Your task to perform on an android device: Go to privacy settings Image 0: 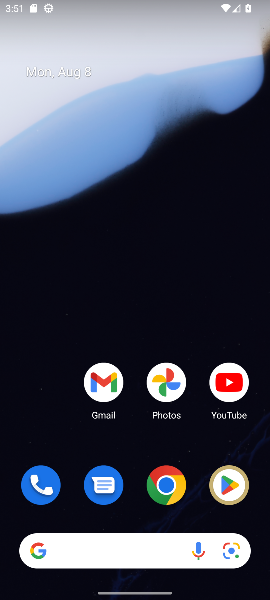
Step 0: drag from (187, 565) to (164, 56)
Your task to perform on an android device: Go to privacy settings Image 1: 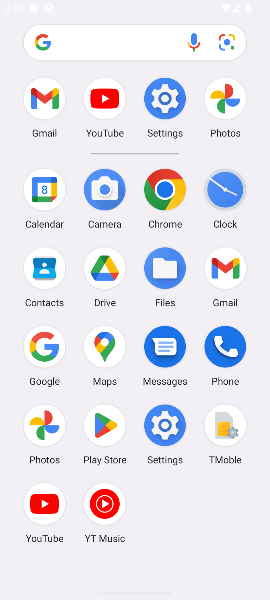
Step 1: drag from (151, 283) to (164, 25)
Your task to perform on an android device: Go to privacy settings Image 2: 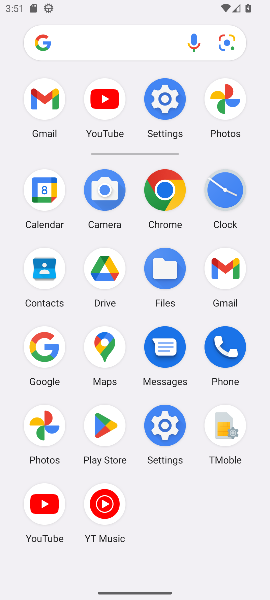
Step 2: click (160, 97)
Your task to perform on an android device: Go to privacy settings Image 3: 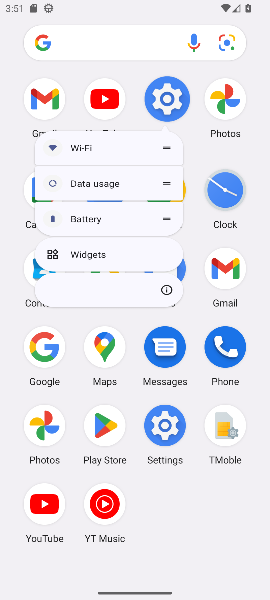
Step 3: click (164, 101)
Your task to perform on an android device: Go to privacy settings Image 4: 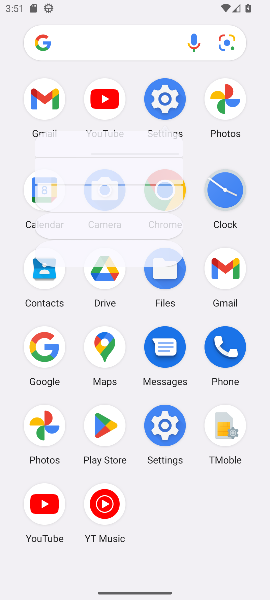
Step 4: click (164, 101)
Your task to perform on an android device: Go to privacy settings Image 5: 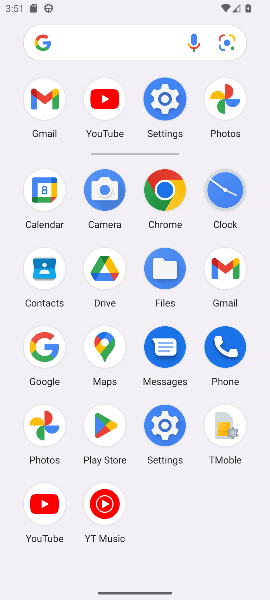
Step 5: click (163, 102)
Your task to perform on an android device: Go to privacy settings Image 6: 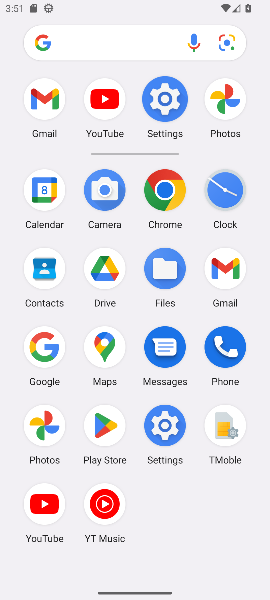
Step 6: click (163, 102)
Your task to perform on an android device: Go to privacy settings Image 7: 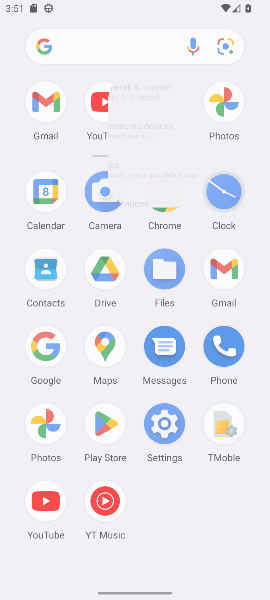
Step 7: click (164, 101)
Your task to perform on an android device: Go to privacy settings Image 8: 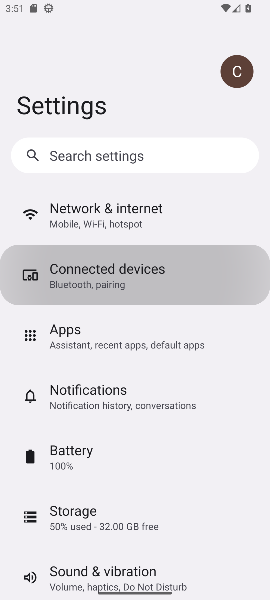
Step 8: click (173, 97)
Your task to perform on an android device: Go to privacy settings Image 9: 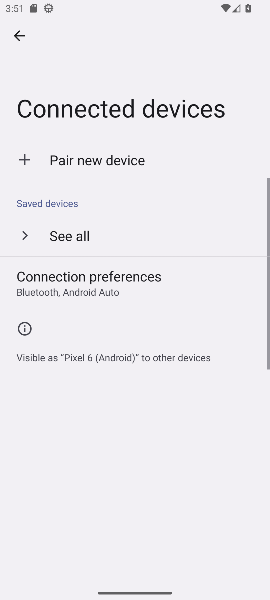
Step 9: click (20, 38)
Your task to perform on an android device: Go to privacy settings Image 10: 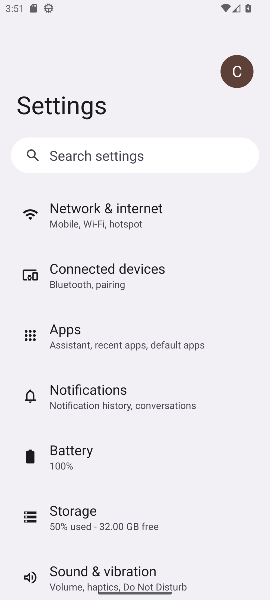
Step 10: drag from (103, 380) to (74, 257)
Your task to perform on an android device: Go to privacy settings Image 11: 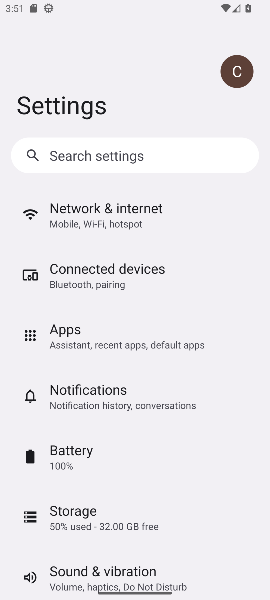
Step 11: drag from (108, 446) to (64, 208)
Your task to perform on an android device: Go to privacy settings Image 12: 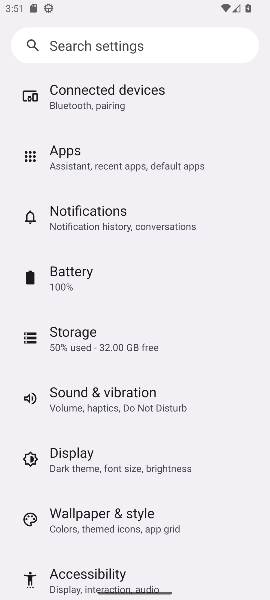
Step 12: drag from (103, 447) to (110, 276)
Your task to perform on an android device: Go to privacy settings Image 13: 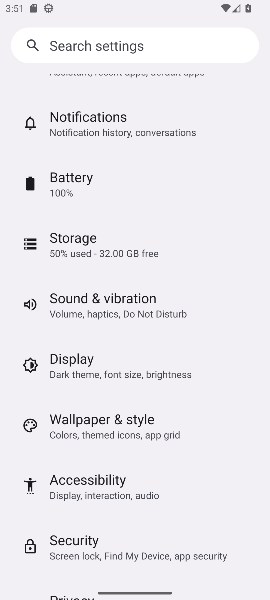
Step 13: drag from (106, 468) to (106, 339)
Your task to perform on an android device: Go to privacy settings Image 14: 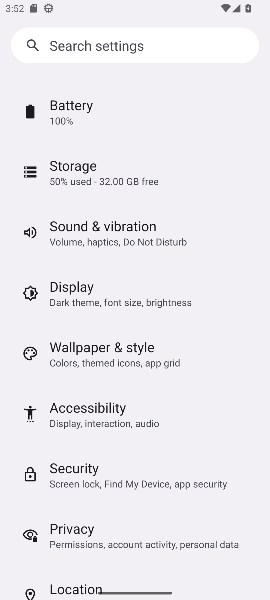
Step 14: click (70, 525)
Your task to perform on an android device: Go to privacy settings Image 15: 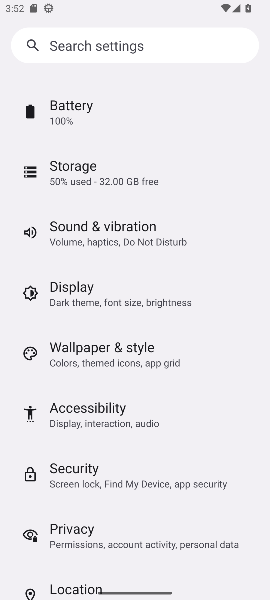
Step 15: click (70, 525)
Your task to perform on an android device: Go to privacy settings Image 16: 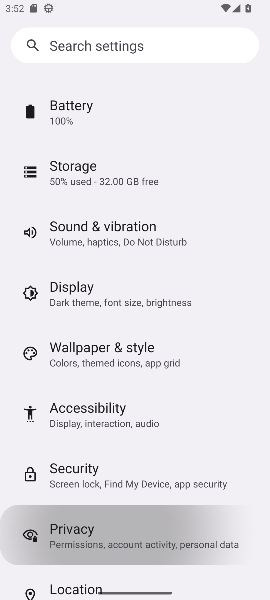
Step 16: click (70, 525)
Your task to perform on an android device: Go to privacy settings Image 17: 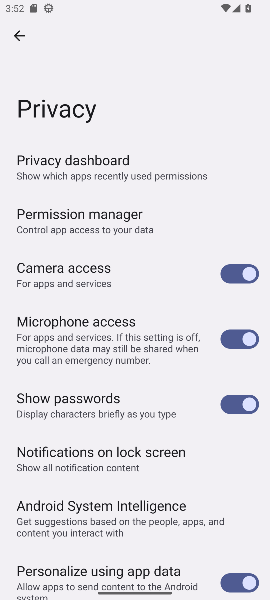
Step 17: task complete